Your task to perform on an android device: turn off smart reply in the gmail app Image 0: 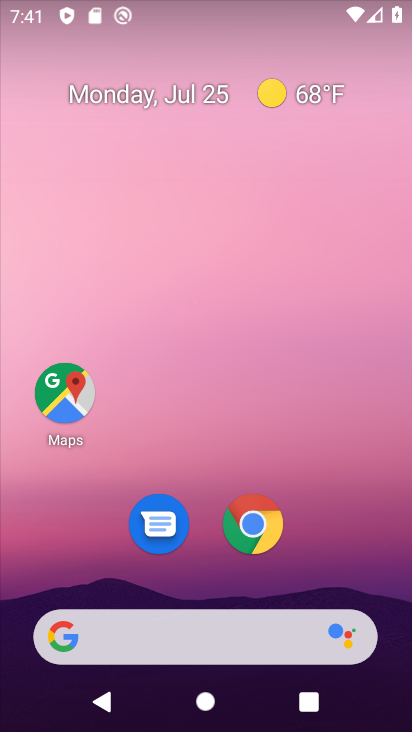
Step 0: drag from (324, 529) to (302, 30)
Your task to perform on an android device: turn off smart reply in the gmail app Image 1: 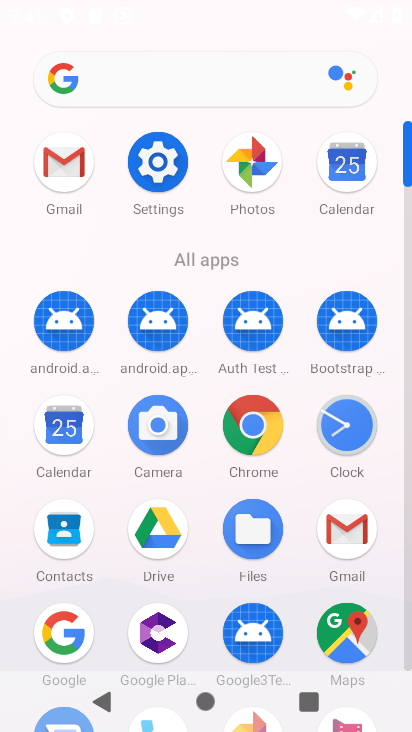
Step 1: click (65, 156)
Your task to perform on an android device: turn off smart reply in the gmail app Image 2: 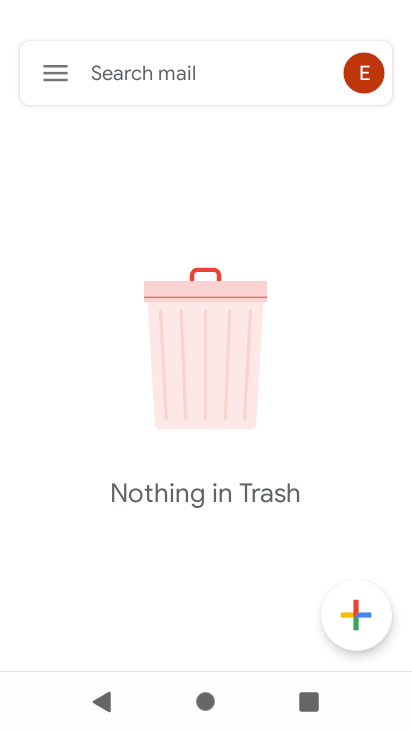
Step 2: click (52, 67)
Your task to perform on an android device: turn off smart reply in the gmail app Image 3: 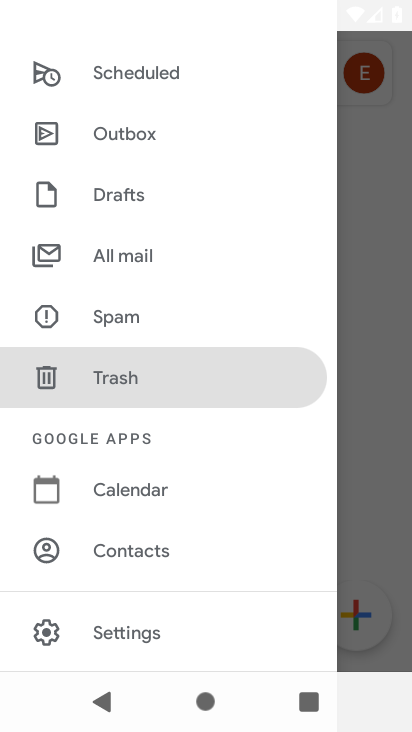
Step 3: click (138, 630)
Your task to perform on an android device: turn off smart reply in the gmail app Image 4: 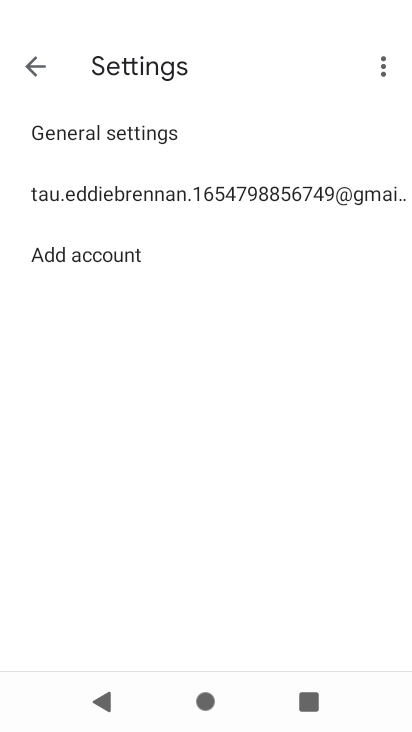
Step 4: click (256, 196)
Your task to perform on an android device: turn off smart reply in the gmail app Image 5: 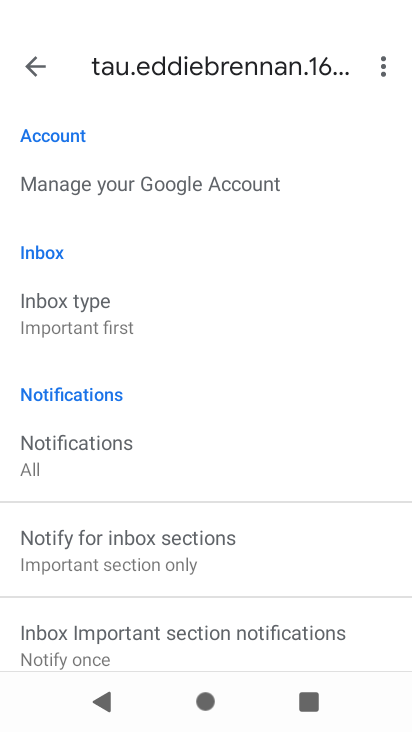
Step 5: task complete